Your task to perform on an android device: Toggle the flashlight Image 0: 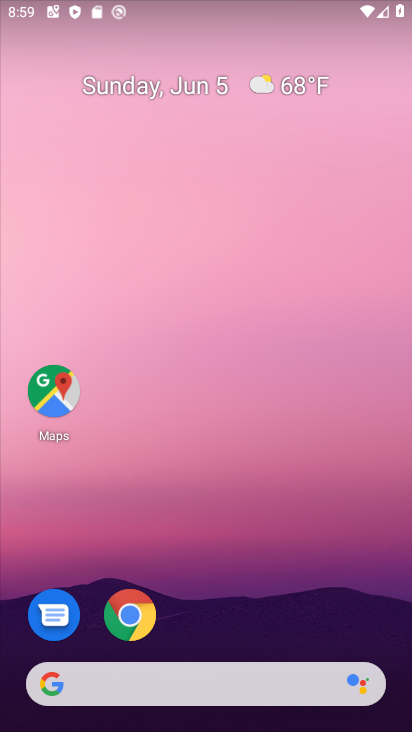
Step 0: drag from (179, 11) to (172, 630)
Your task to perform on an android device: Toggle the flashlight Image 1: 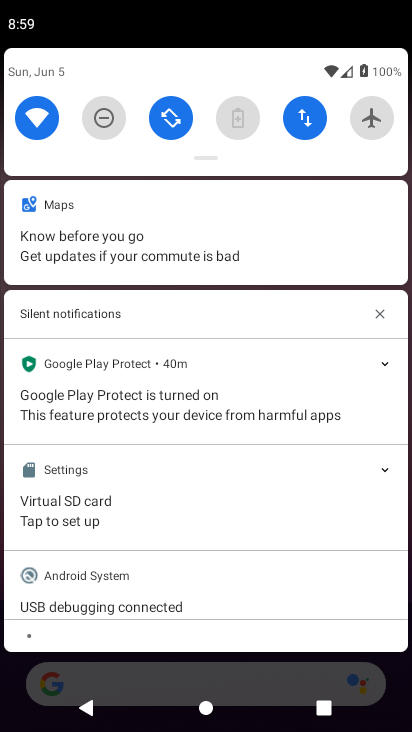
Step 1: task complete